Your task to perform on an android device: Clear the cart on costco.com. Add "bose soundsport free" to the cart on costco.com Image 0: 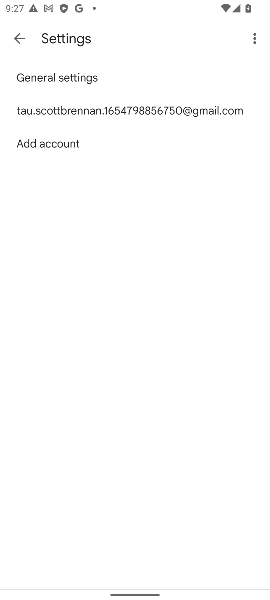
Step 0: press home button
Your task to perform on an android device: Clear the cart on costco.com. Add "bose soundsport free" to the cart on costco.com Image 1: 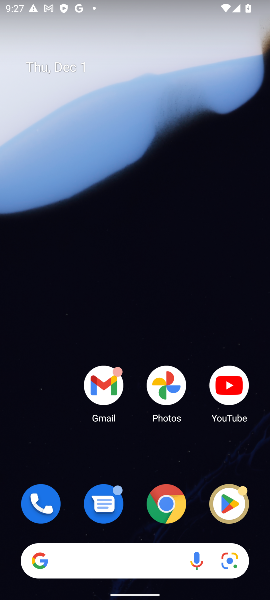
Step 1: click (174, 515)
Your task to perform on an android device: Clear the cart on costco.com. Add "bose soundsport free" to the cart on costco.com Image 2: 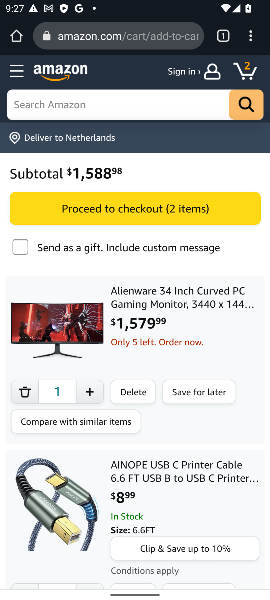
Step 2: click (107, 30)
Your task to perform on an android device: Clear the cart on costco.com. Add "bose soundsport free" to the cart on costco.com Image 3: 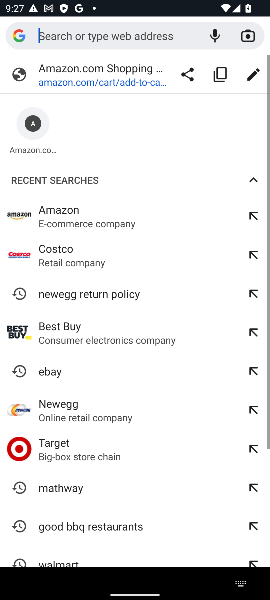
Step 3: click (62, 260)
Your task to perform on an android device: Clear the cart on costco.com. Add "bose soundsport free" to the cart on costco.com Image 4: 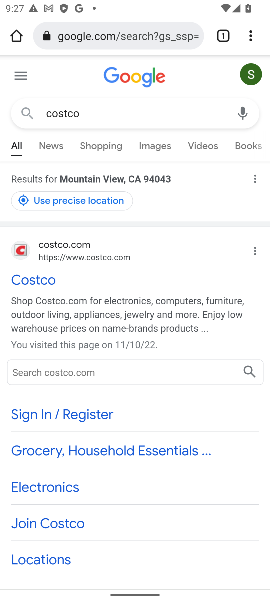
Step 4: click (41, 276)
Your task to perform on an android device: Clear the cart on costco.com. Add "bose soundsport free" to the cart on costco.com Image 5: 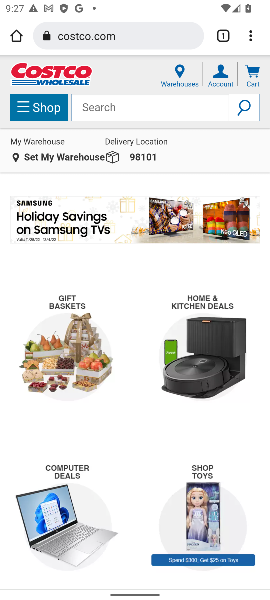
Step 5: click (124, 105)
Your task to perform on an android device: Clear the cart on costco.com. Add "bose soundsport free" to the cart on costco.com Image 6: 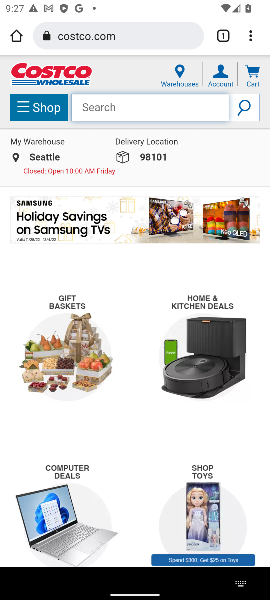
Step 6: type "bose soundsport free"
Your task to perform on an android device: Clear the cart on costco.com. Add "bose soundsport free" to the cart on costco.com Image 7: 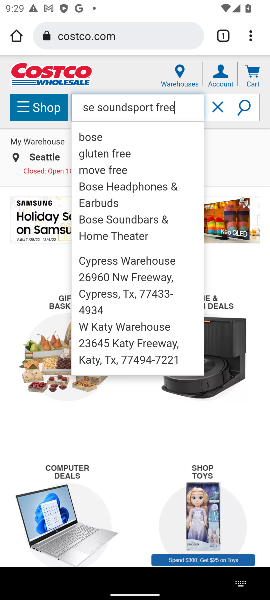
Step 7: click (108, 141)
Your task to perform on an android device: Clear the cart on costco.com. Add "bose soundsport free" to the cart on costco.com Image 8: 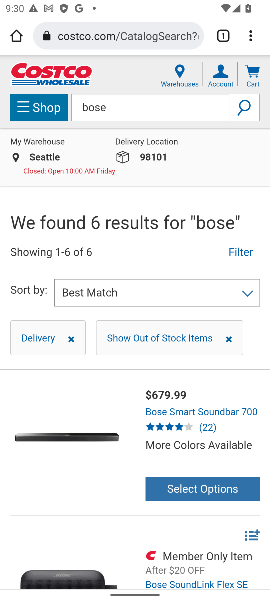
Step 8: click (82, 434)
Your task to perform on an android device: Clear the cart on costco.com. Add "bose soundsport free" to the cart on costco.com Image 9: 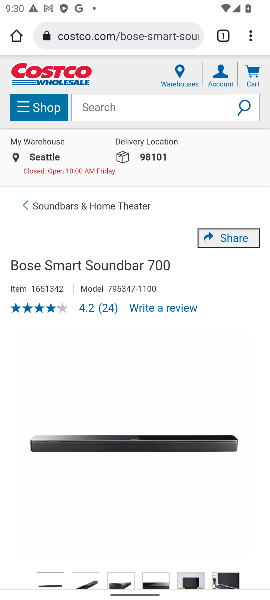
Step 9: drag from (168, 533) to (150, 112)
Your task to perform on an android device: Clear the cart on costco.com. Add "bose soundsport free" to the cart on costco.com Image 10: 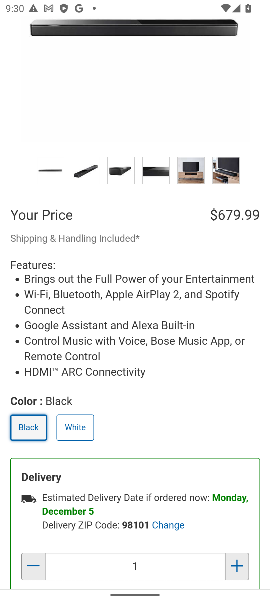
Step 10: drag from (166, 549) to (153, 221)
Your task to perform on an android device: Clear the cart on costco.com. Add "bose soundsport free" to the cart on costco.com Image 11: 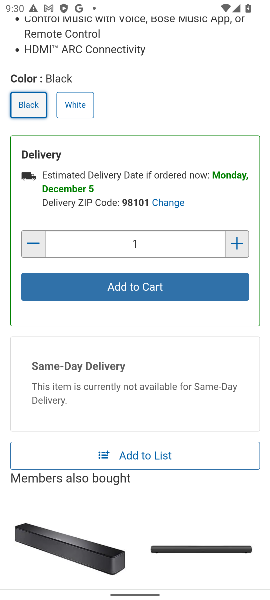
Step 11: click (133, 287)
Your task to perform on an android device: Clear the cart on costco.com. Add "bose soundsport free" to the cart on costco.com Image 12: 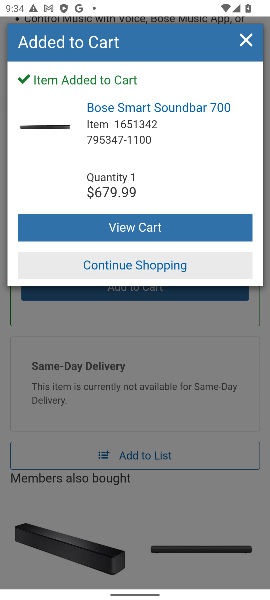
Step 12: task complete